Your task to perform on an android device: check out phone information Image 0: 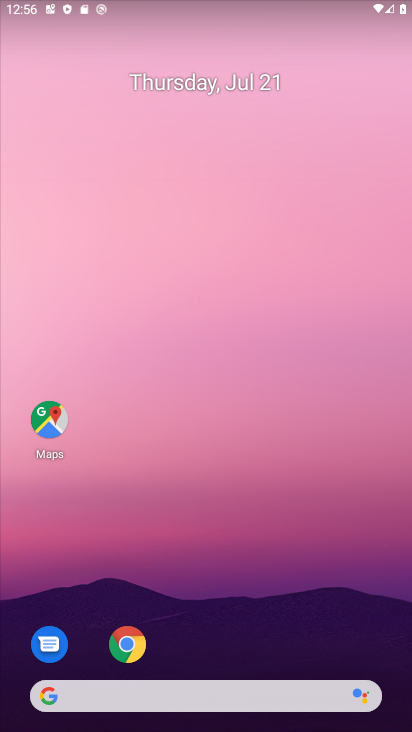
Step 0: drag from (284, 651) to (282, 94)
Your task to perform on an android device: check out phone information Image 1: 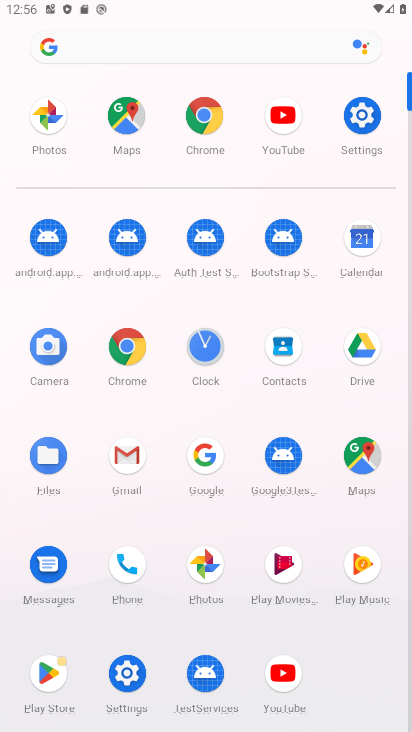
Step 1: click (134, 589)
Your task to perform on an android device: check out phone information Image 2: 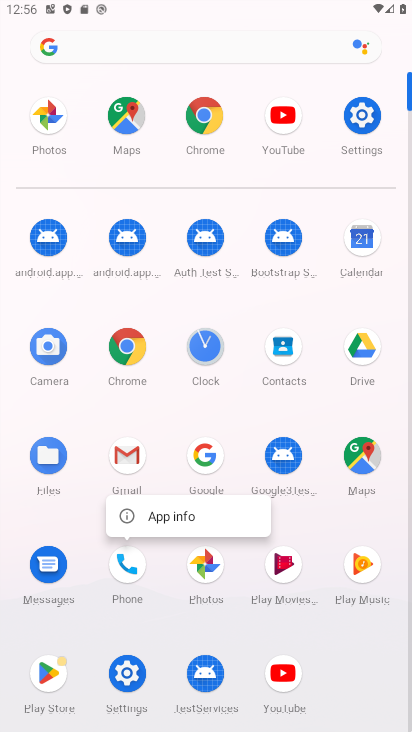
Step 2: click (198, 502)
Your task to perform on an android device: check out phone information Image 3: 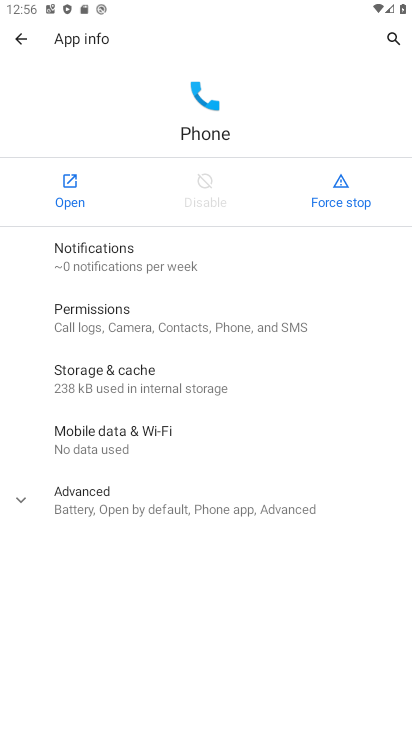
Step 3: task complete